Your task to perform on an android device: toggle javascript in the chrome app Image 0: 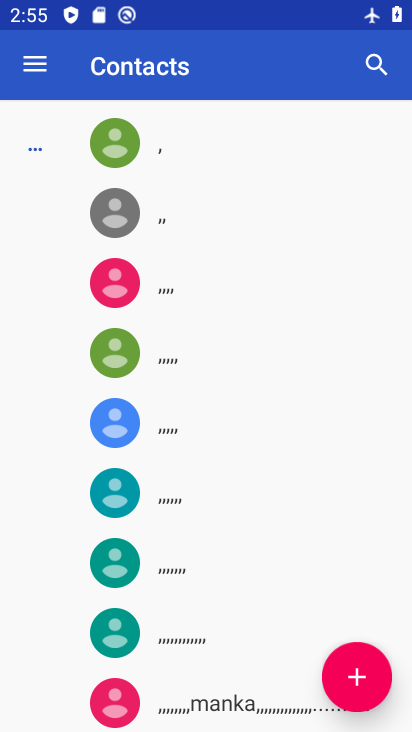
Step 0: drag from (313, 584) to (365, 167)
Your task to perform on an android device: toggle javascript in the chrome app Image 1: 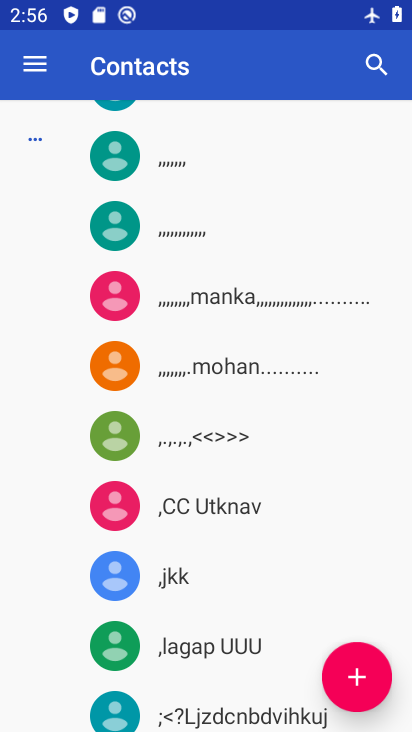
Step 1: press home button
Your task to perform on an android device: toggle javascript in the chrome app Image 2: 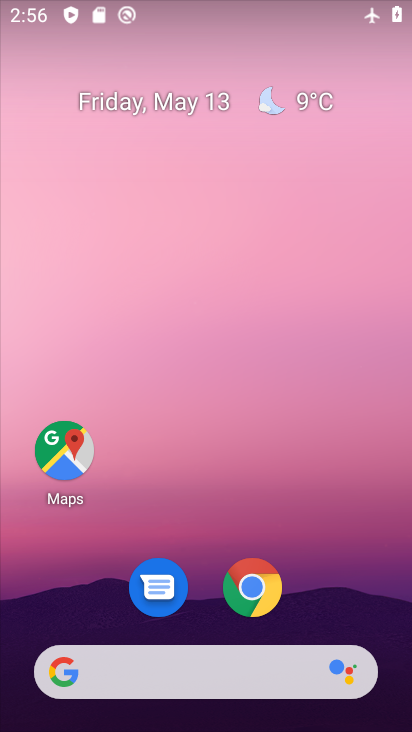
Step 2: click (263, 584)
Your task to perform on an android device: toggle javascript in the chrome app Image 3: 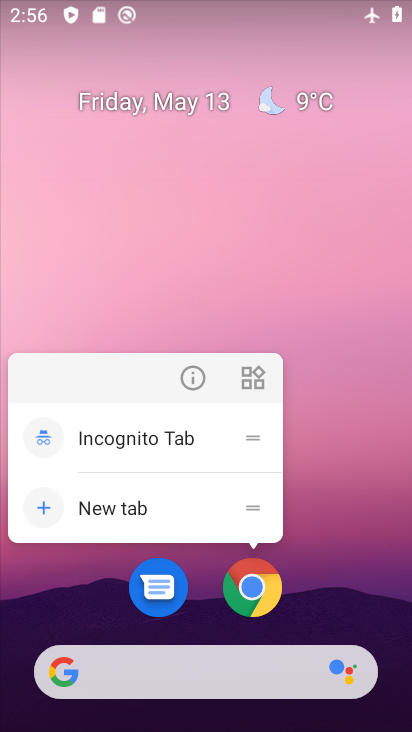
Step 3: click (263, 584)
Your task to perform on an android device: toggle javascript in the chrome app Image 4: 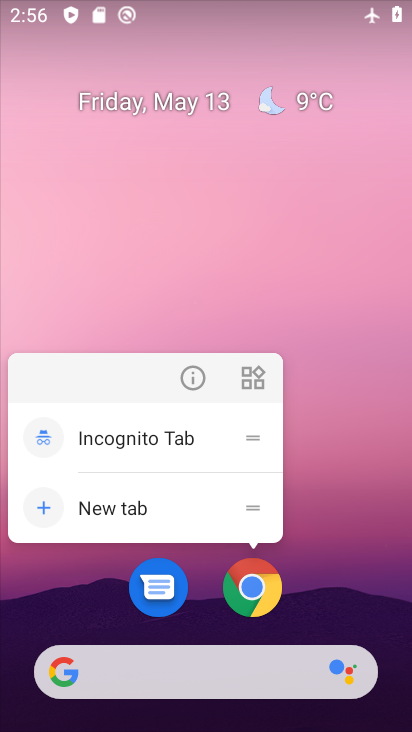
Step 4: click (241, 601)
Your task to perform on an android device: toggle javascript in the chrome app Image 5: 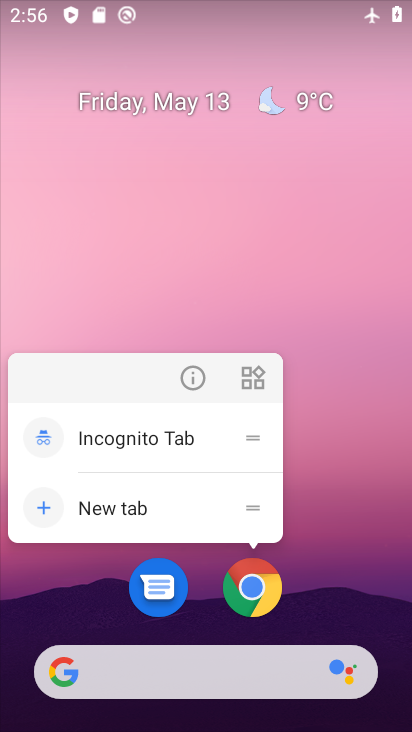
Step 5: click (247, 596)
Your task to perform on an android device: toggle javascript in the chrome app Image 6: 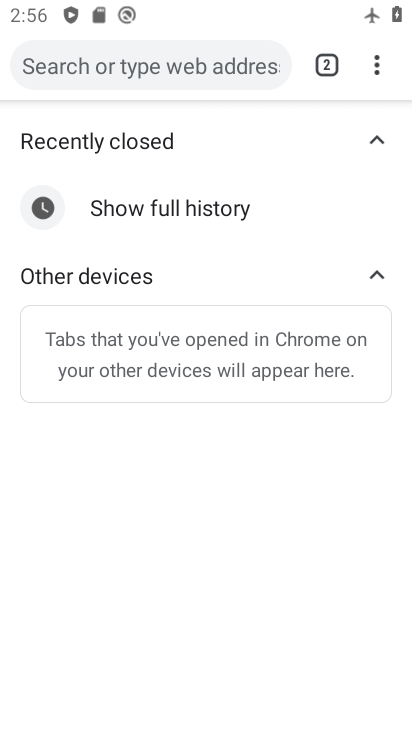
Step 6: drag from (377, 68) to (199, 550)
Your task to perform on an android device: toggle javascript in the chrome app Image 7: 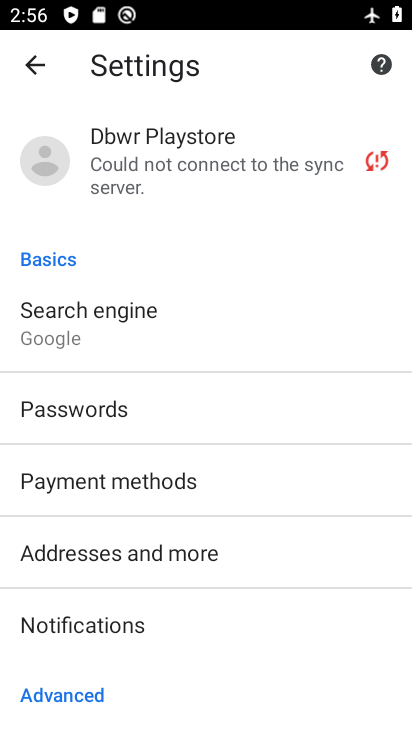
Step 7: drag from (147, 617) to (178, 237)
Your task to perform on an android device: toggle javascript in the chrome app Image 8: 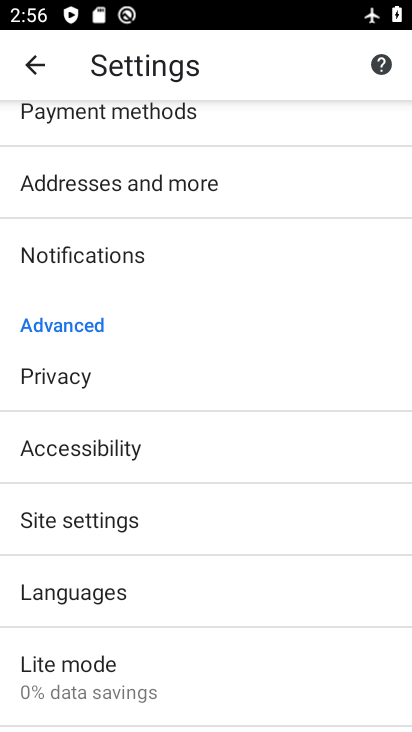
Step 8: drag from (160, 690) to (194, 476)
Your task to perform on an android device: toggle javascript in the chrome app Image 9: 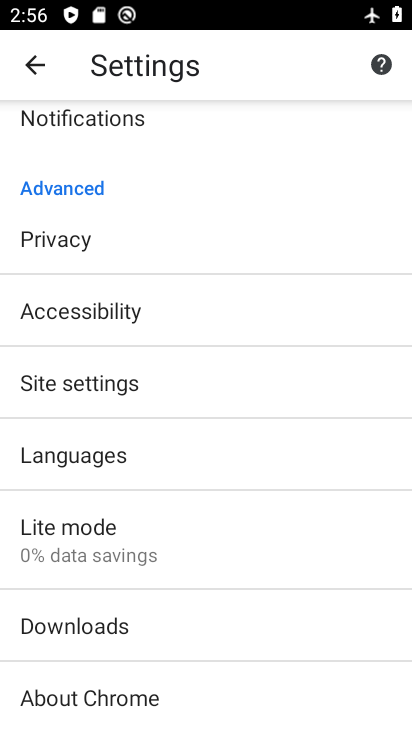
Step 9: click (132, 379)
Your task to perform on an android device: toggle javascript in the chrome app Image 10: 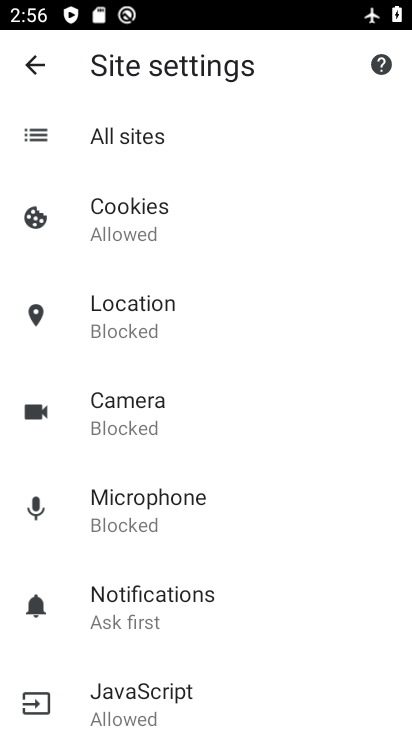
Step 10: click (148, 707)
Your task to perform on an android device: toggle javascript in the chrome app Image 11: 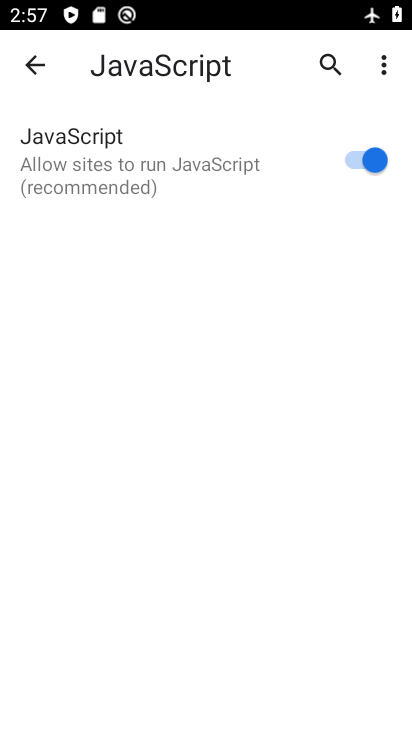
Step 11: click (370, 164)
Your task to perform on an android device: toggle javascript in the chrome app Image 12: 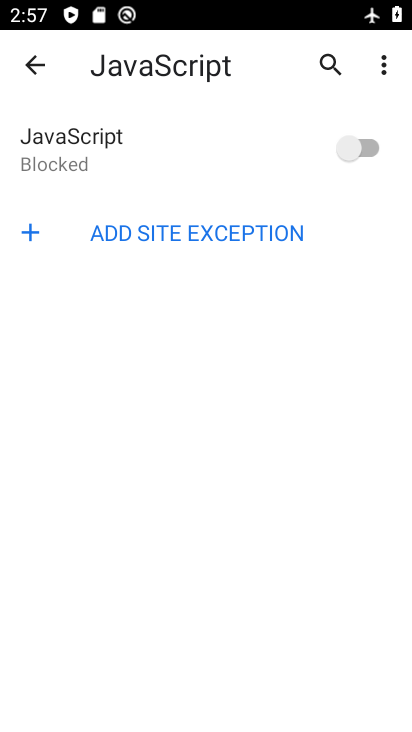
Step 12: task complete